Your task to perform on an android device: open app "Viber Messenger" (install if not already installed) Image 0: 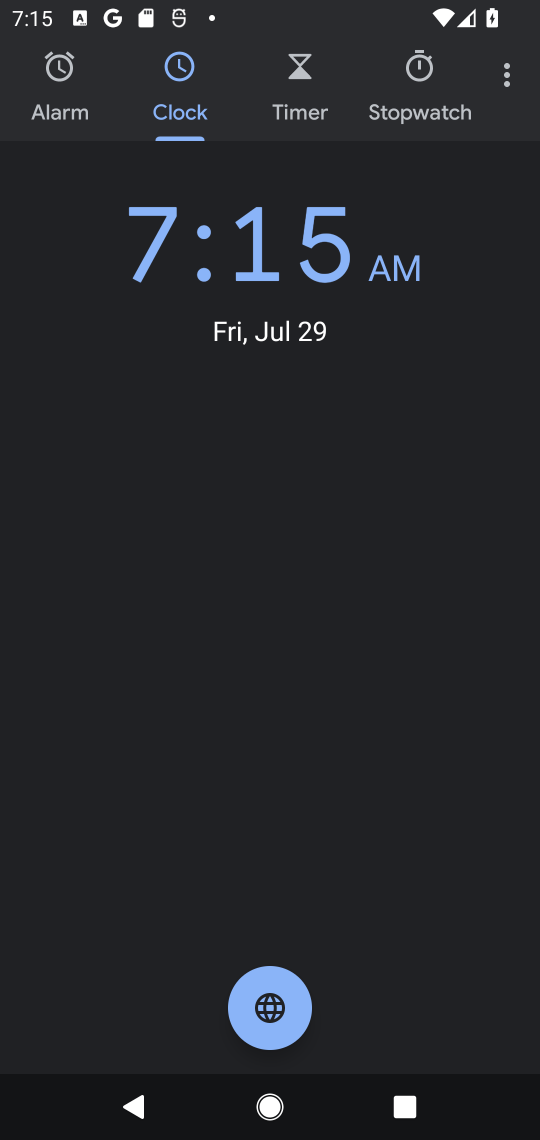
Step 0: press home button
Your task to perform on an android device: open app "Viber Messenger" (install if not already installed) Image 1: 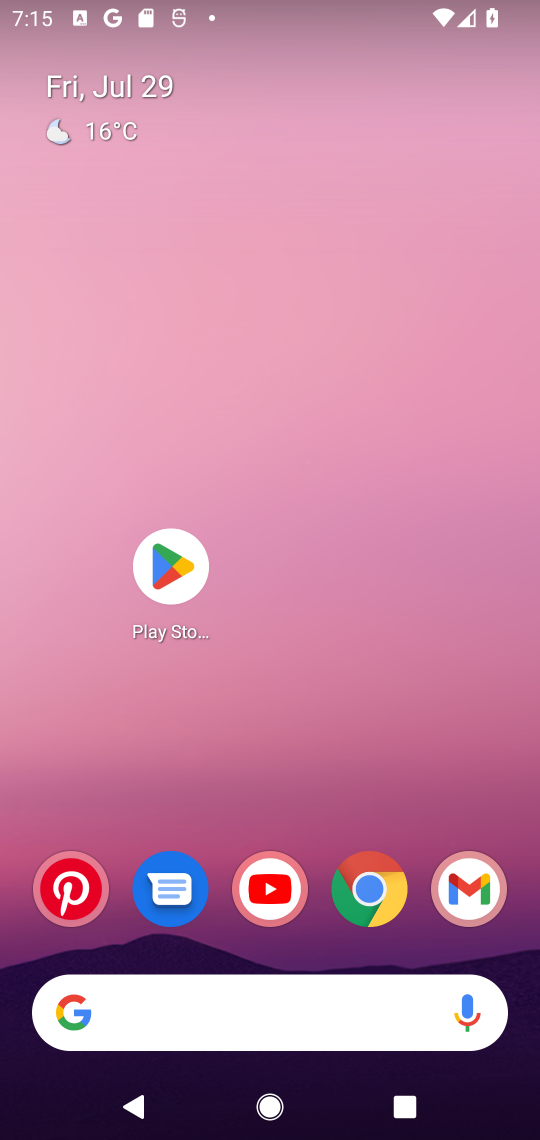
Step 1: click (178, 570)
Your task to perform on an android device: open app "Viber Messenger" (install if not already installed) Image 2: 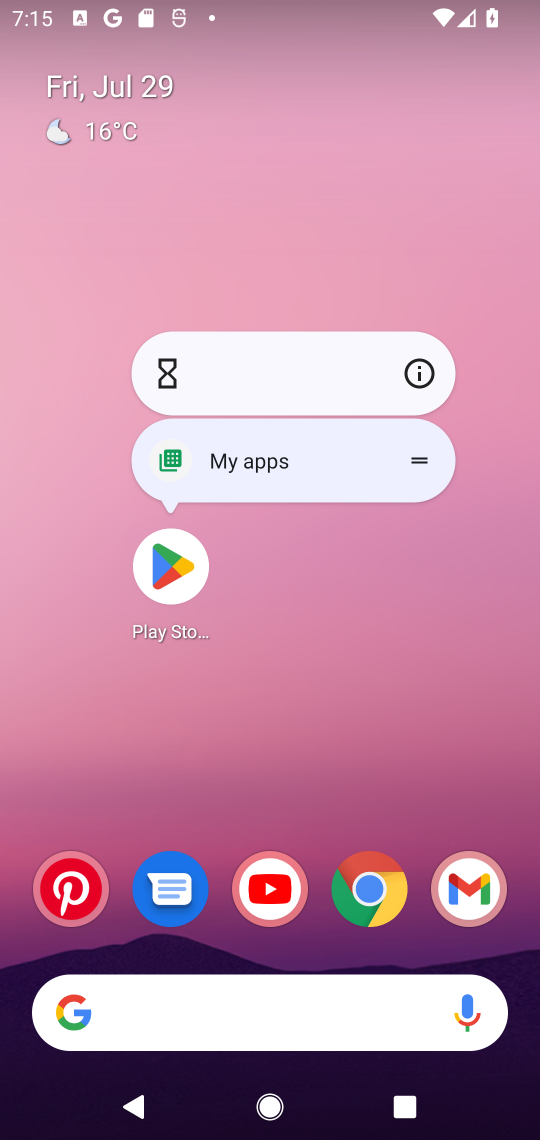
Step 2: click (173, 566)
Your task to perform on an android device: open app "Viber Messenger" (install if not already installed) Image 3: 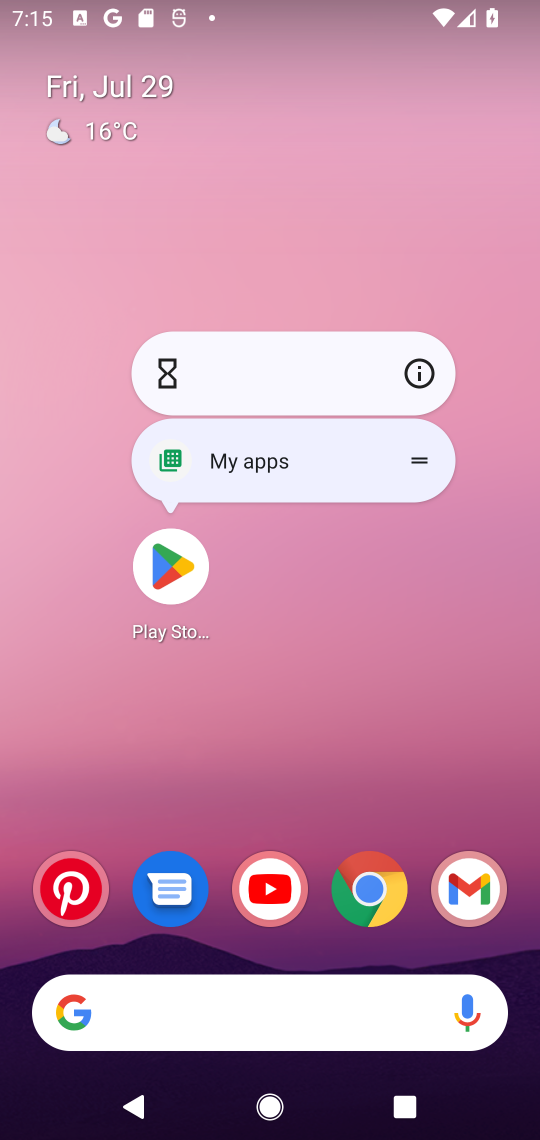
Step 3: click (173, 566)
Your task to perform on an android device: open app "Viber Messenger" (install if not already installed) Image 4: 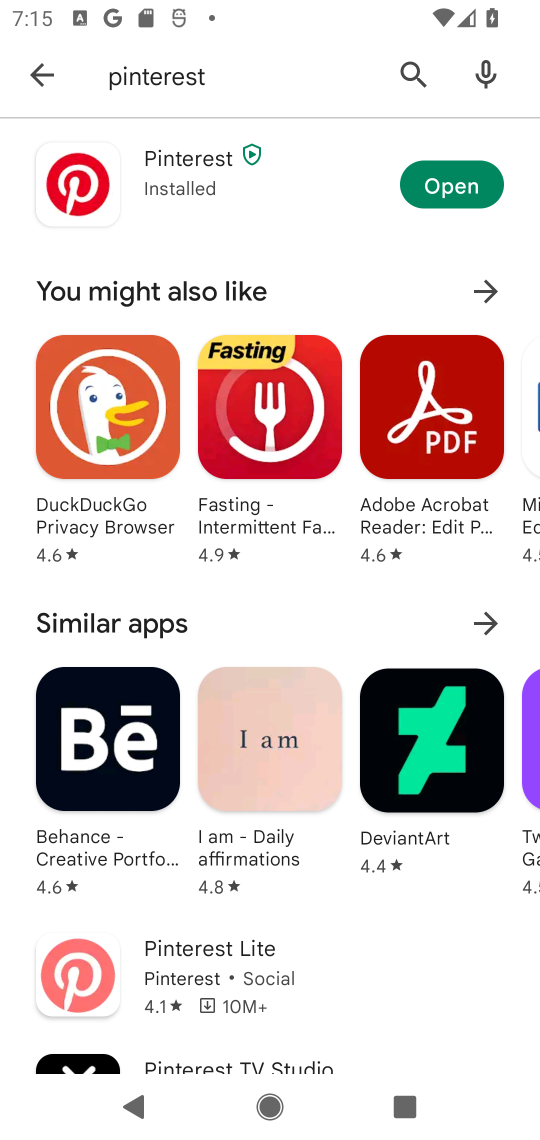
Step 4: click (410, 63)
Your task to perform on an android device: open app "Viber Messenger" (install if not already installed) Image 5: 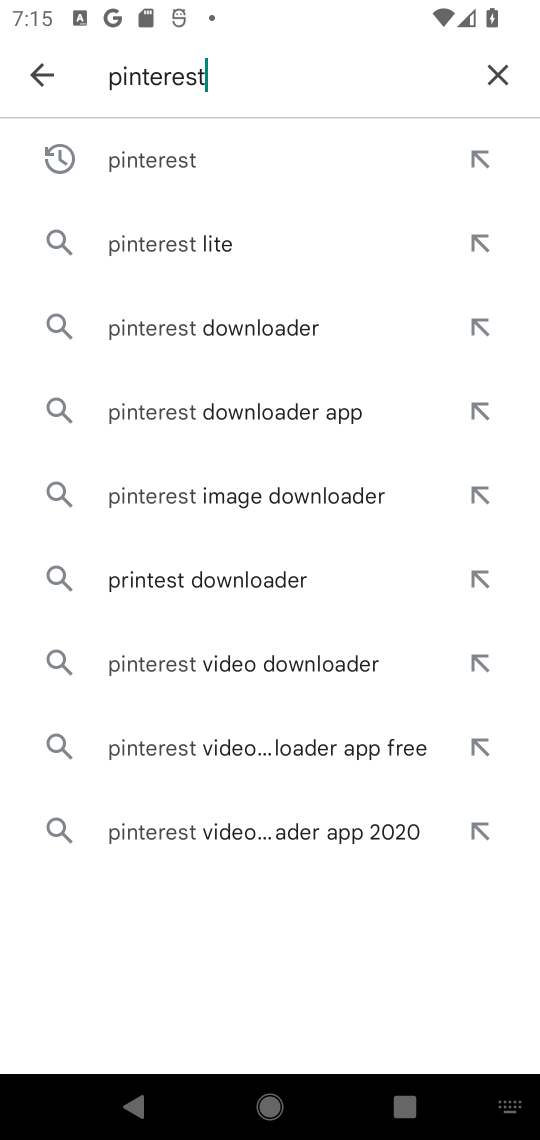
Step 5: click (497, 68)
Your task to perform on an android device: open app "Viber Messenger" (install if not already installed) Image 6: 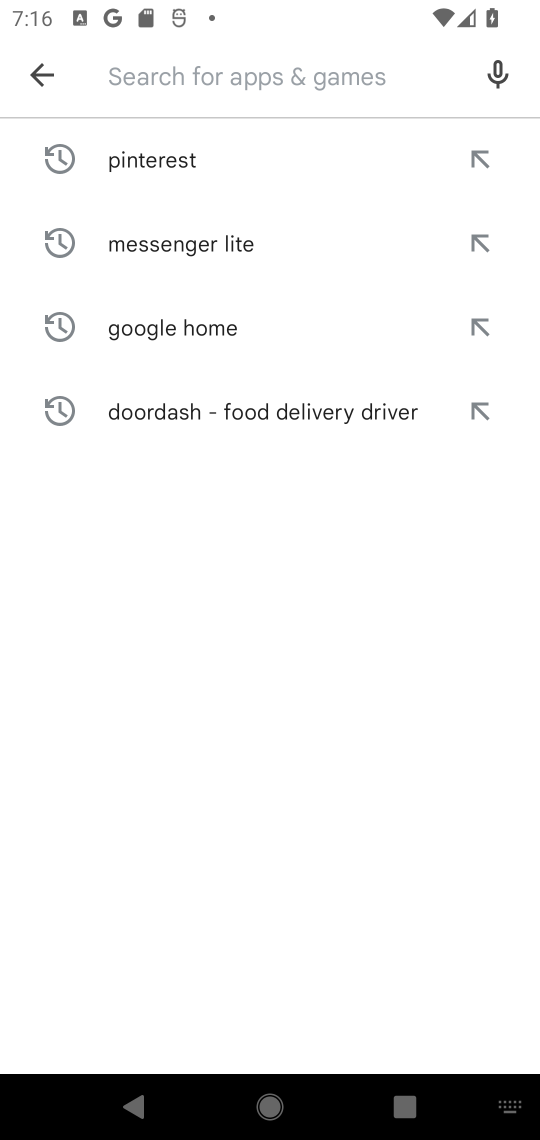
Step 6: type "Viber Messenger"
Your task to perform on an android device: open app "Viber Messenger" (install if not already installed) Image 7: 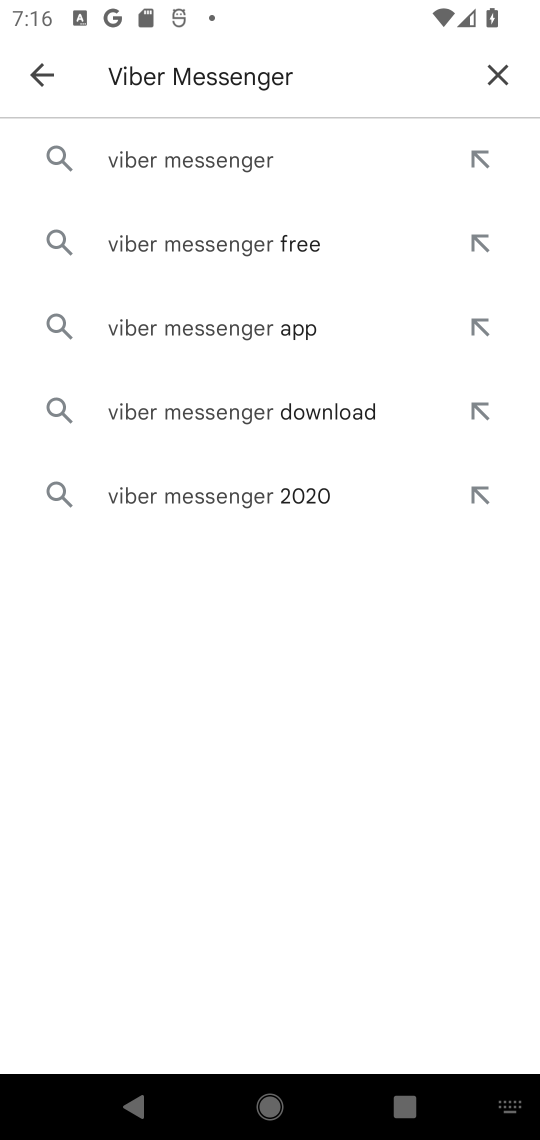
Step 7: click (170, 158)
Your task to perform on an android device: open app "Viber Messenger" (install if not already installed) Image 8: 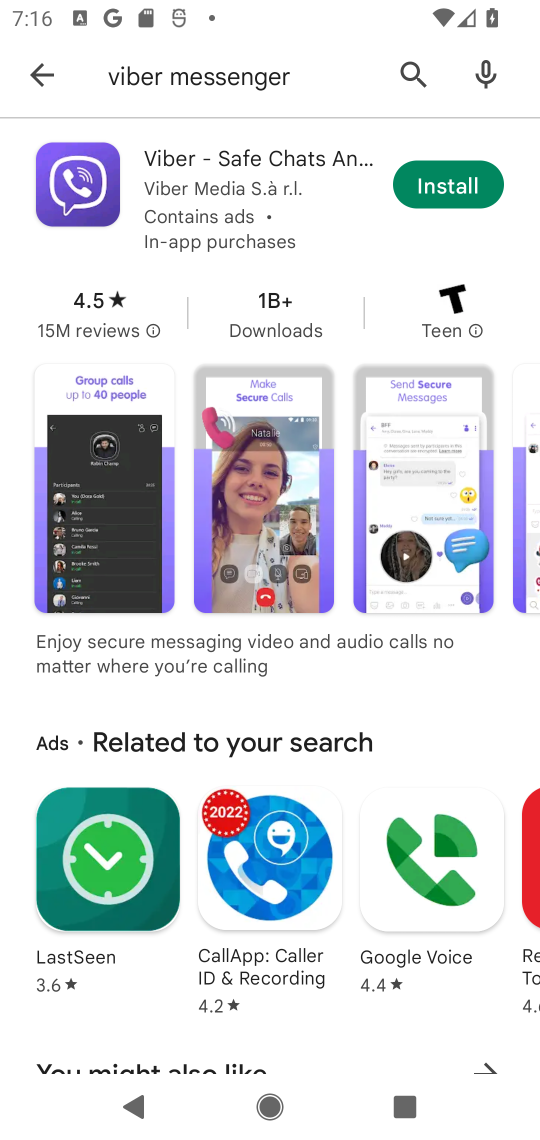
Step 8: click (453, 191)
Your task to perform on an android device: open app "Viber Messenger" (install if not already installed) Image 9: 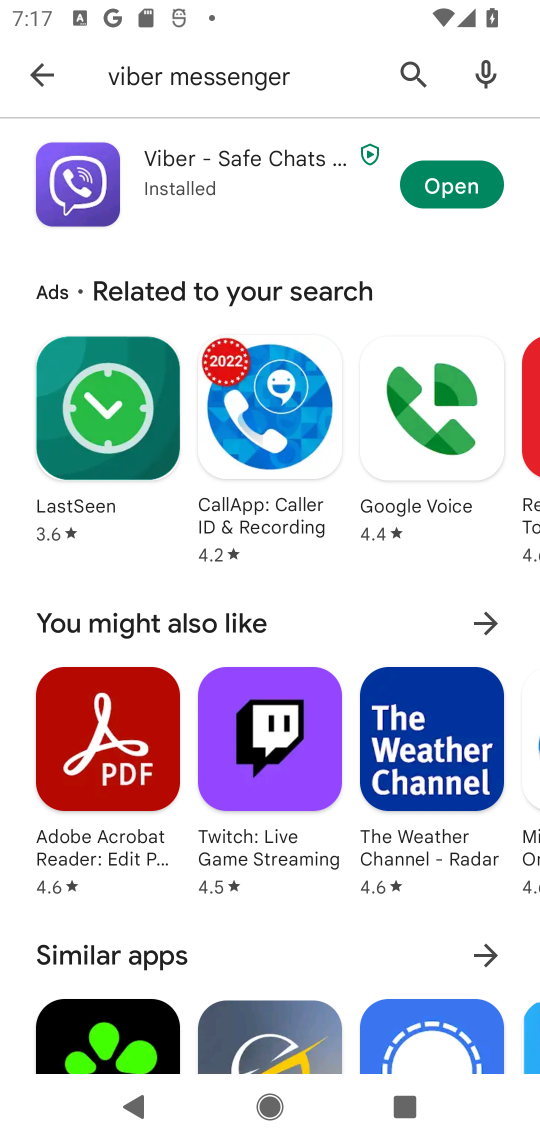
Step 9: click (445, 187)
Your task to perform on an android device: open app "Viber Messenger" (install if not already installed) Image 10: 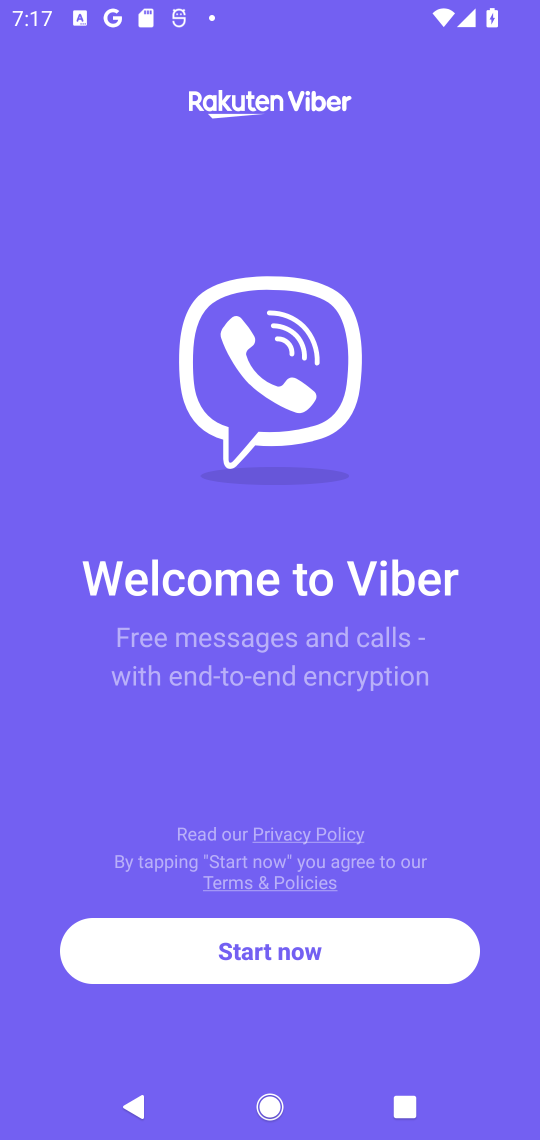
Step 10: task complete